Your task to perform on an android device: turn on airplane mode Image 0: 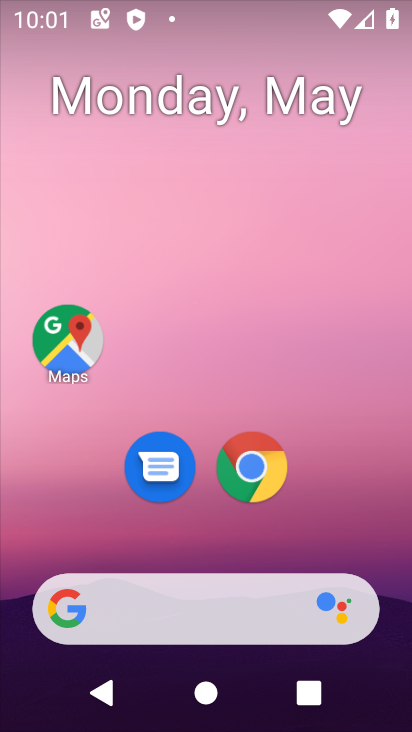
Step 0: drag from (401, 627) to (337, 54)
Your task to perform on an android device: turn on airplane mode Image 1: 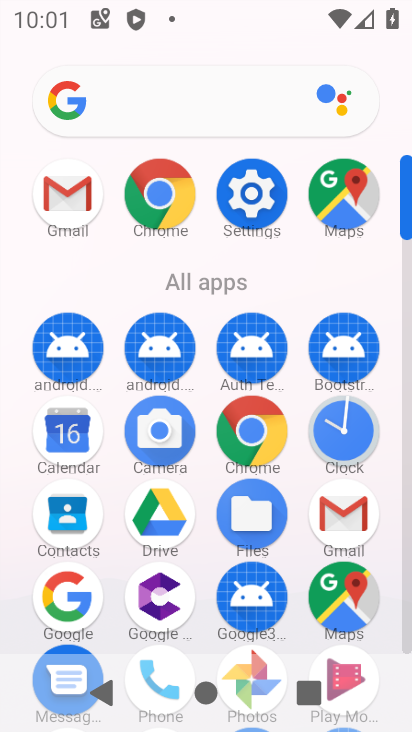
Step 1: click (409, 641)
Your task to perform on an android device: turn on airplane mode Image 2: 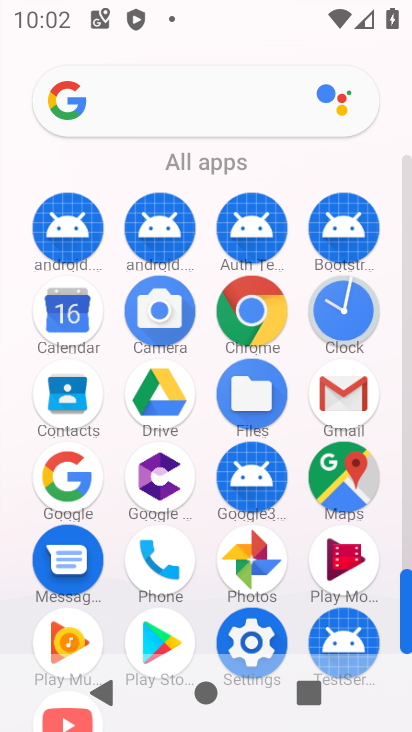
Step 2: click (253, 638)
Your task to perform on an android device: turn on airplane mode Image 3: 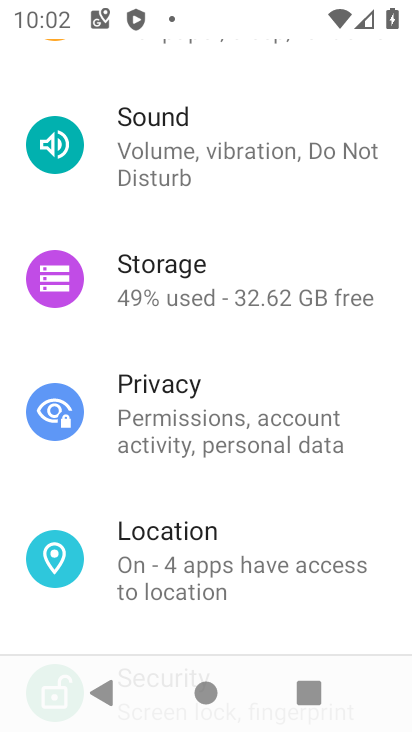
Step 3: drag from (369, 108) to (351, 528)
Your task to perform on an android device: turn on airplane mode Image 4: 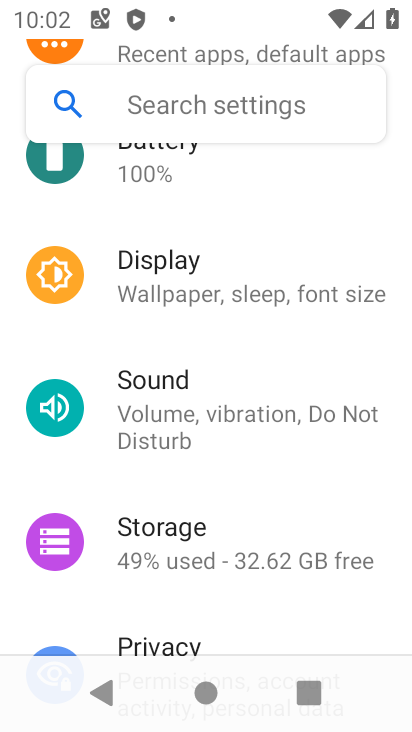
Step 4: drag from (351, 215) to (343, 570)
Your task to perform on an android device: turn on airplane mode Image 5: 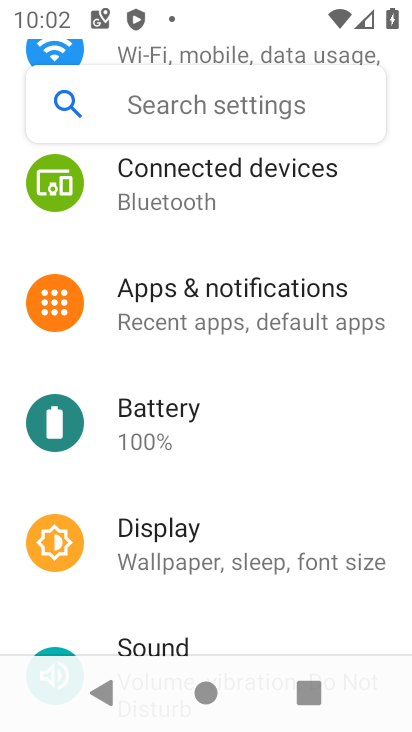
Step 5: drag from (340, 193) to (322, 578)
Your task to perform on an android device: turn on airplane mode Image 6: 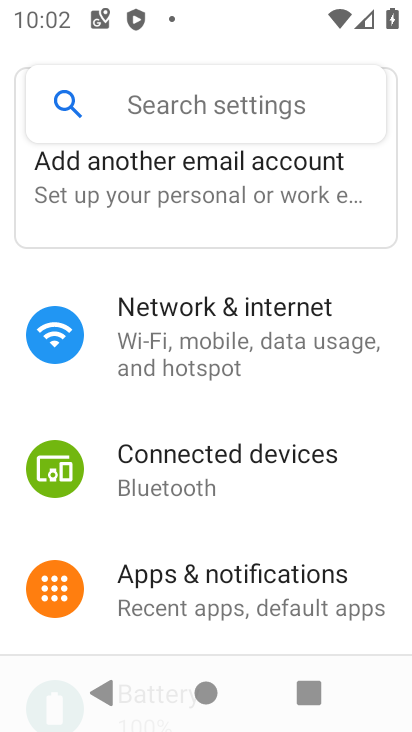
Step 6: click (137, 308)
Your task to perform on an android device: turn on airplane mode Image 7: 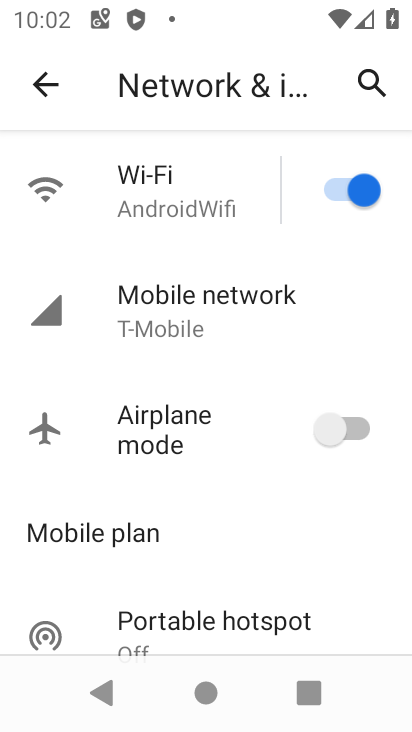
Step 7: click (364, 429)
Your task to perform on an android device: turn on airplane mode Image 8: 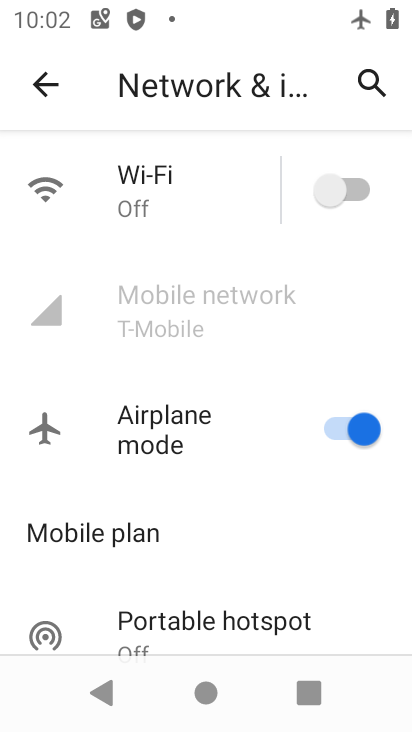
Step 8: task complete